Your task to perform on an android device: What is the recent news? Image 0: 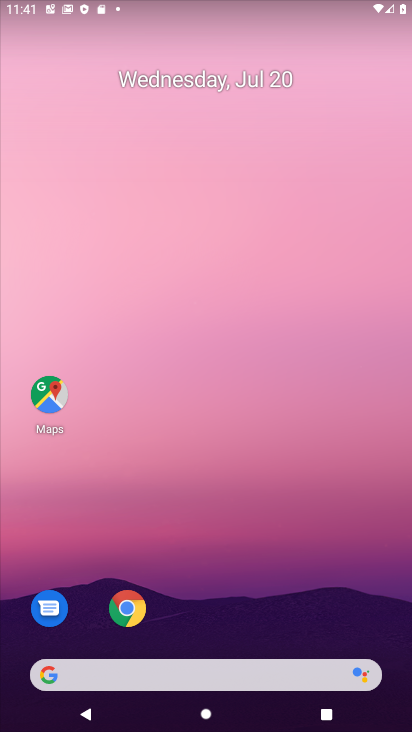
Step 0: click (46, 676)
Your task to perform on an android device: What is the recent news? Image 1: 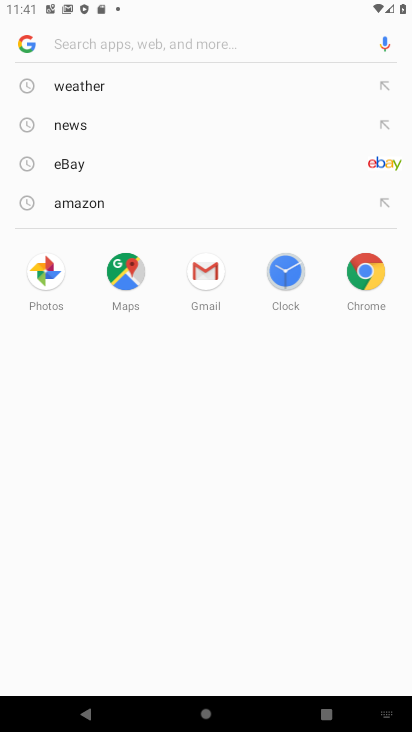
Step 1: type "recent news"
Your task to perform on an android device: What is the recent news? Image 2: 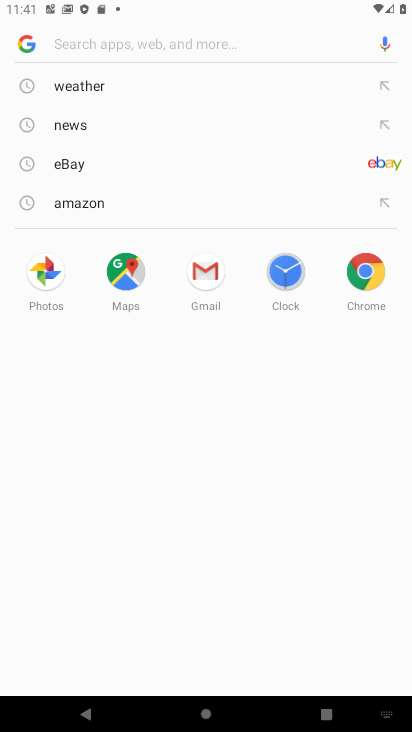
Step 2: click (88, 32)
Your task to perform on an android device: What is the recent news? Image 3: 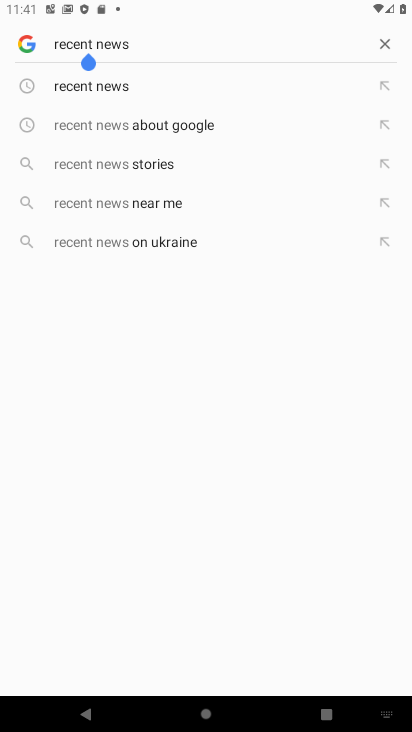
Step 3: click (71, 86)
Your task to perform on an android device: What is the recent news? Image 4: 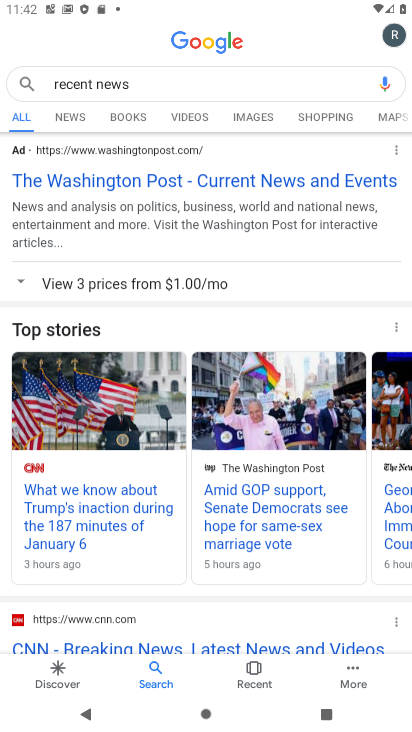
Step 4: task complete